Your task to perform on an android device: Open location settings Image 0: 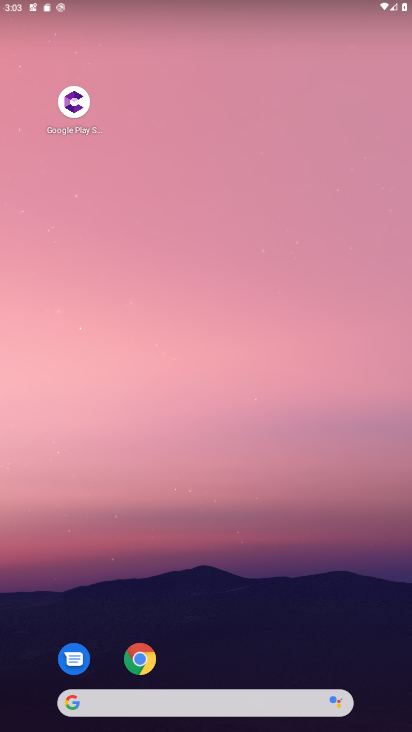
Step 0: drag from (243, 645) to (122, 16)
Your task to perform on an android device: Open location settings Image 1: 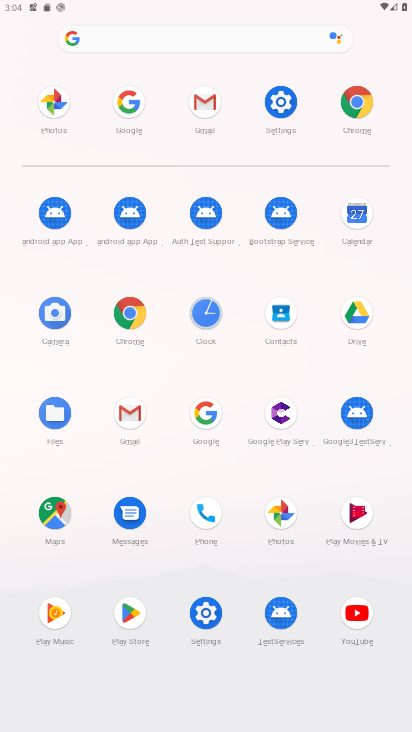
Step 1: click (280, 119)
Your task to perform on an android device: Open location settings Image 2: 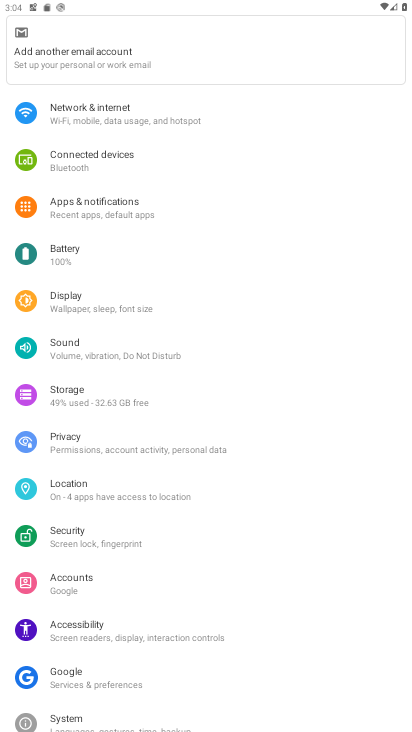
Step 2: click (82, 487)
Your task to perform on an android device: Open location settings Image 3: 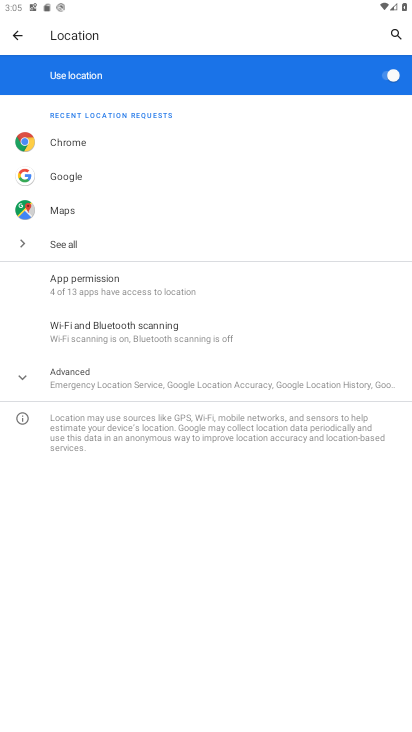
Step 3: task complete